Your task to perform on an android device: turn on priority inbox in the gmail app Image 0: 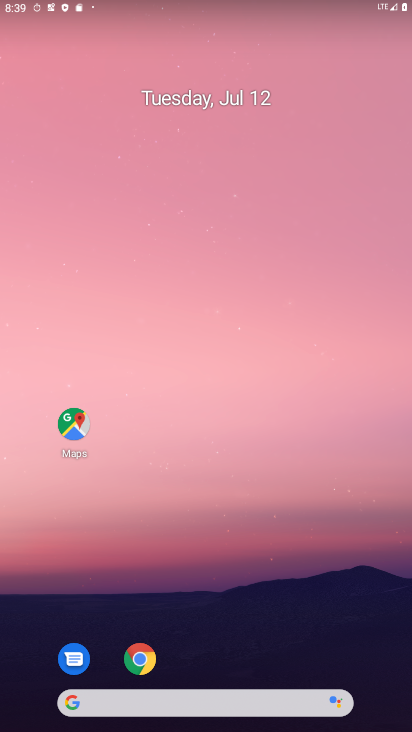
Step 0: drag from (369, 657) to (209, 68)
Your task to perform on an android device: turn on priority inbox in the gmail app Image 1: 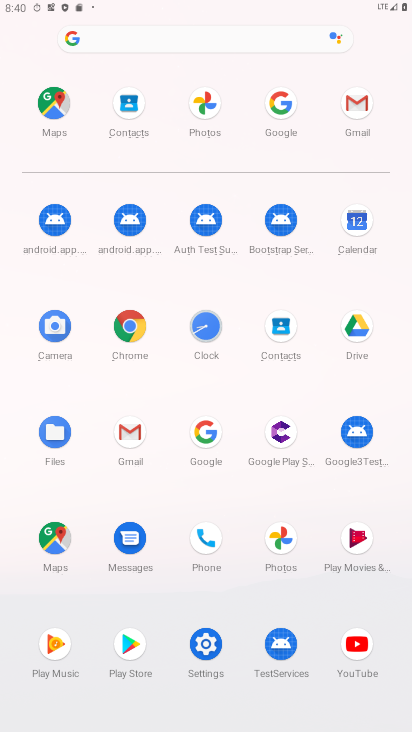
Step 1: click (353, 123)
Your task to perform on an android device: turn on priority inbox in the gmail app Image 2: 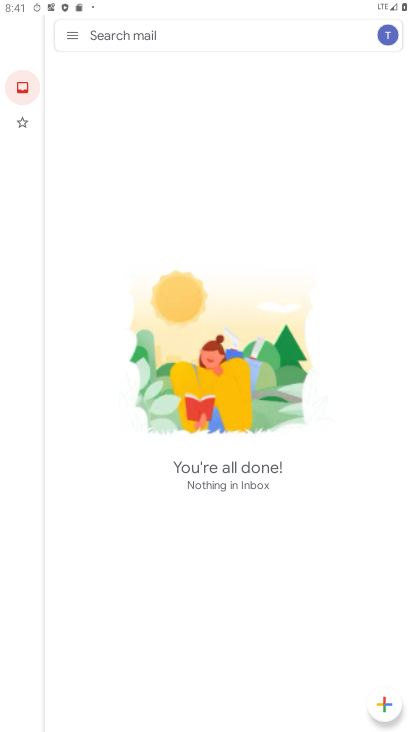
Step 2: click (77, 36)
Your task to perform on an android device: turn on priority inbox in the gmail app Image 3: 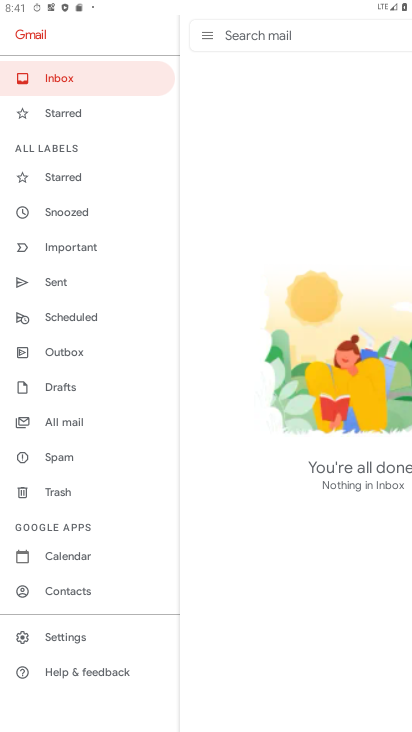
Step 3: click (88, 632)
Your task to perform on an android device: turn on priority inbox in the gmail app Image 4: 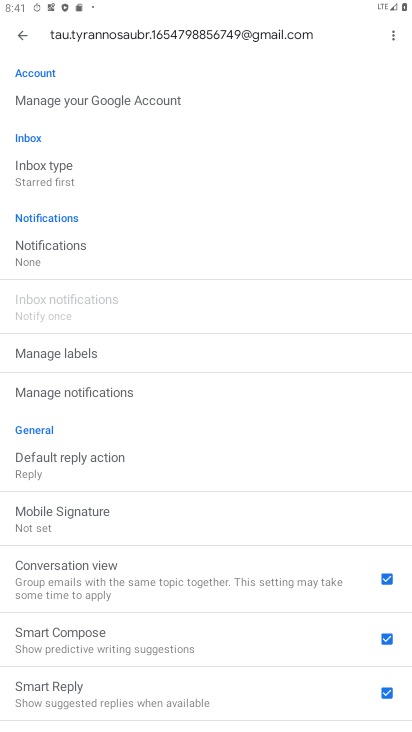
Step 4: click (78, 172)
Your task to perform on an android device: turn on priority inbox in the gmail app Image 5: 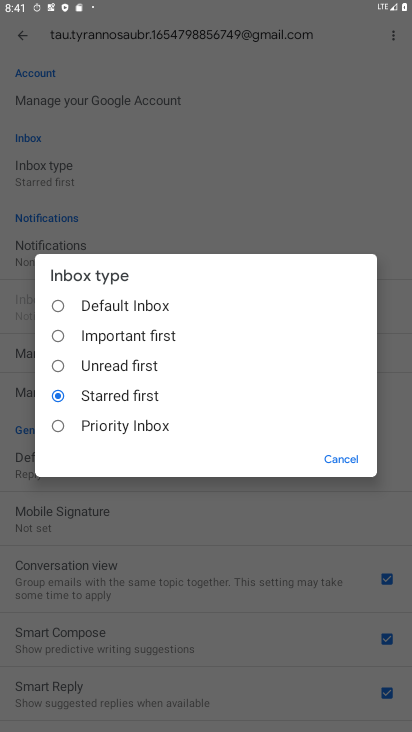
Step 5: click (68, 430)
Your task to perform on an android device: turn on priority inbox in the gmail app Image 6: 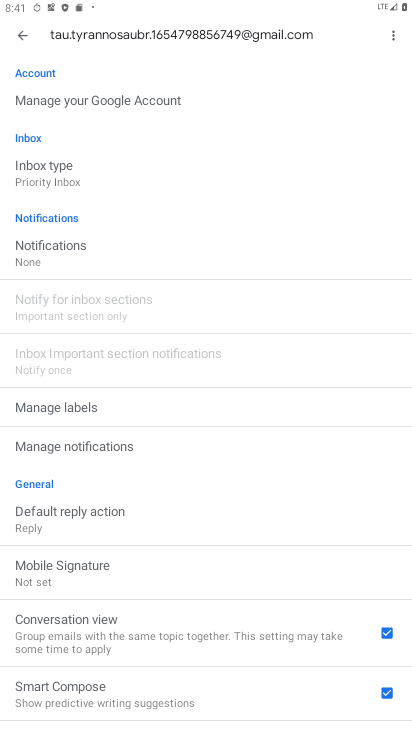
Step 6: task complete